Your task to perform on an android device: Search for "jbl flip 4" on target.com, select the first entry, and add it to the cart. Image 0: 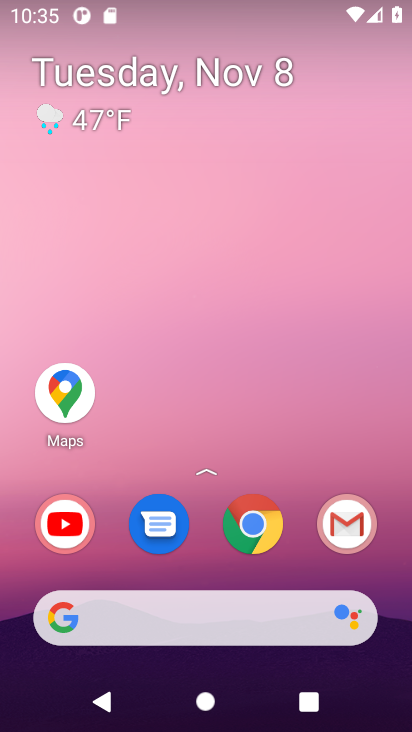
Step 0: click (256, 530)
Your task to perform on an android device: Search for "jbl flip 4" on target.com, select the first entry, and add it to the cart. Image 1: 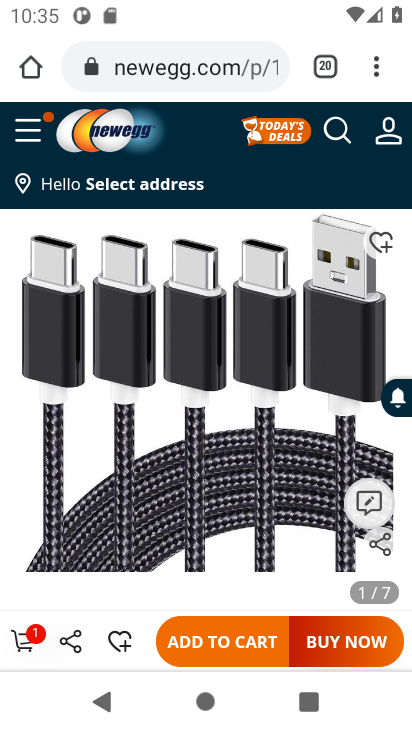
Step 1: click (190, 77)
Your task to perform on an android device: Search for "jbl flip 4" on target.com, select the first entry, and add it to the cart. Image 2: 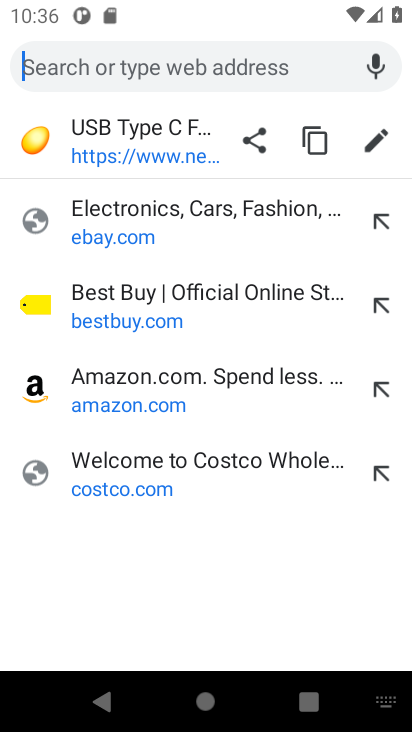
Step 2: type "target.com"
Your task to perform on an android device: Search for "jbl flip 4" on target.com, select the first entry, and add it to the cart. Image 3: 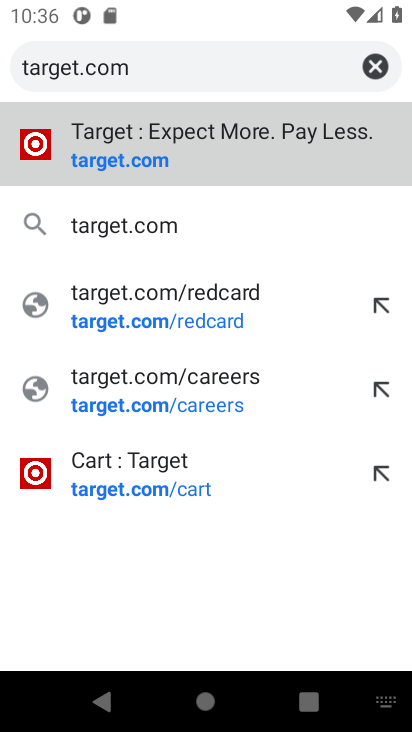
Step 3: click (138, 162)
Your task to perform on an android device: Search for "jbl flip 4" on target.com, select the first entry, and add it to the cart. Image 4: 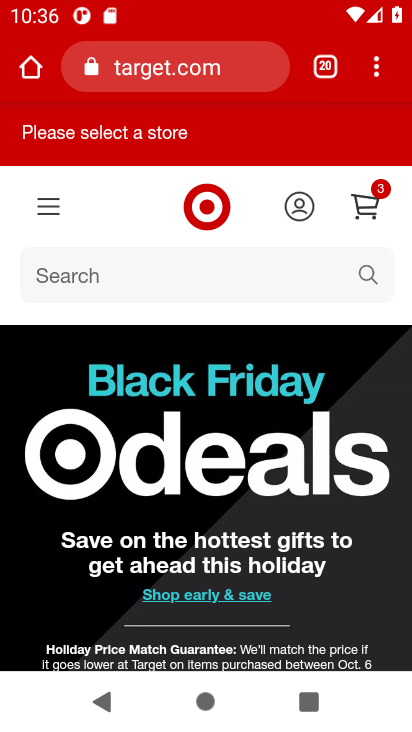
Step 4: click (366, 275)
Your task to perform on an android device: Search for "jbl flip 4" on target.com, select the first entry, and add it to the cart. Image 5: 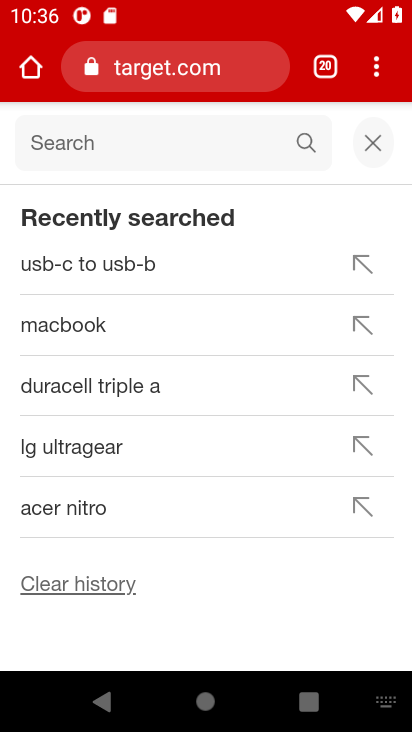
Step 5: type "jbl flip 4"
Your task to perform on an android device: Search for "jbl flip 4" on target.com, select the first entry, and add it to the cart. Image 6: 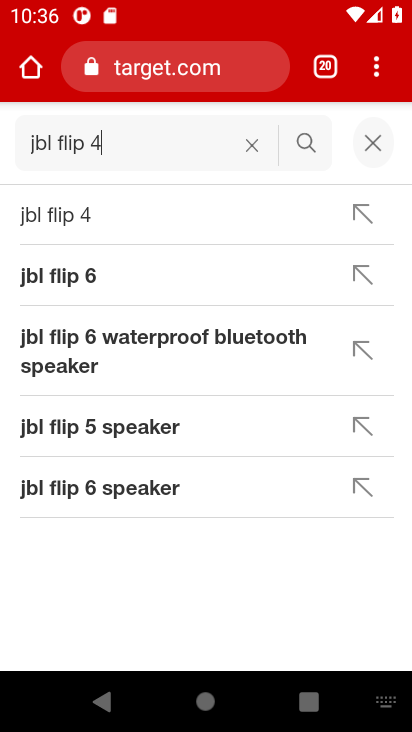
Step 6: click (63, 222)
Your task to perform on an android device: Search for "jbl flip 4" on target.com, select the first entry, and add it to the cart. Image 7: 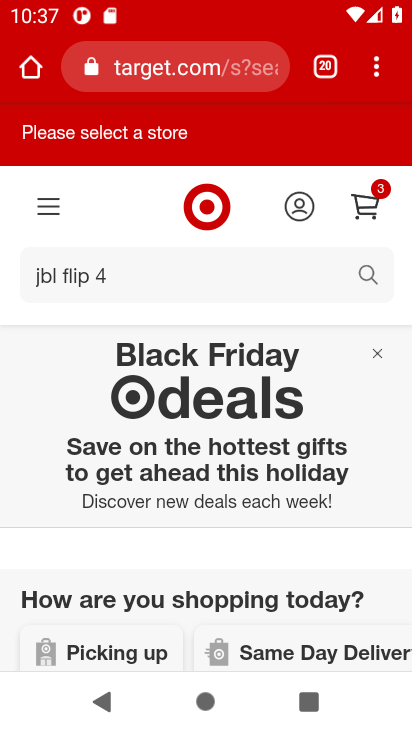
Step 7: task complete